Your task to perform on an android device: turn on bluetooth scan Image 0: 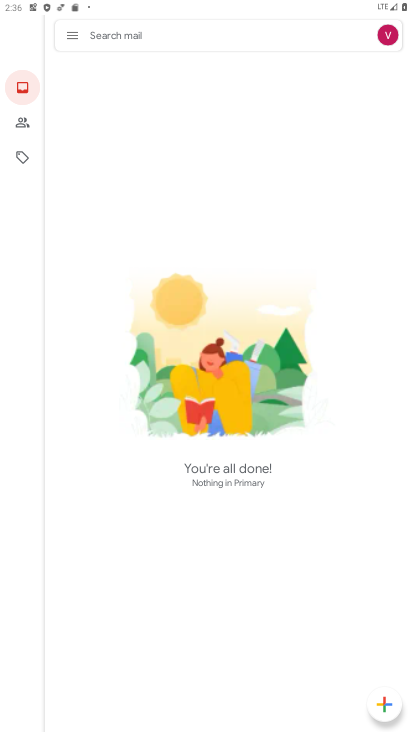
Step 0: press home button
Your task to perform on an android device: turn on bluetooth scan Image 1: 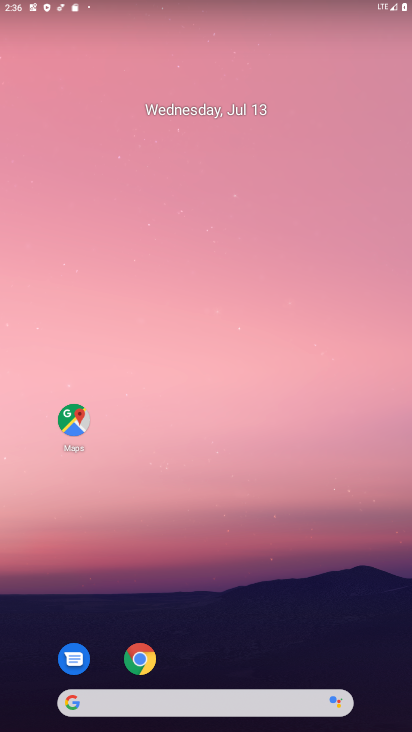
Step 1: drag from (371, 655) to (340, 47)
Your task to perform on an android device: turn on bluetooth scan Image 2: 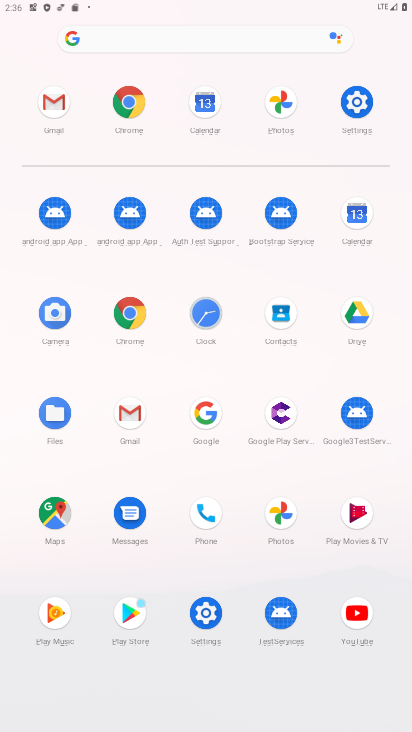
Step 2: click (205, 616)
Your task to perform on an android device: turn on bluetooth scan Image 3: 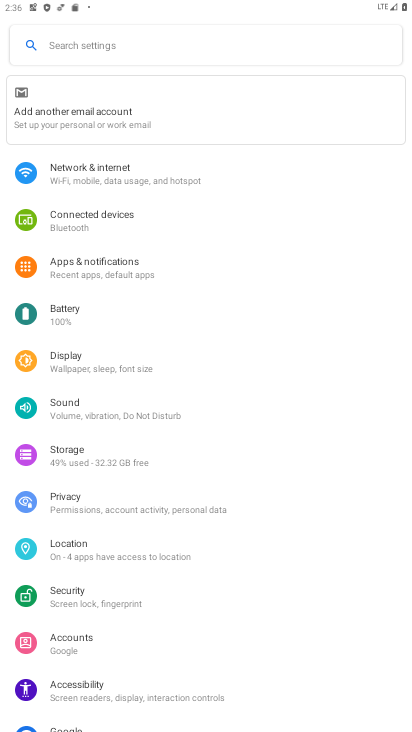
Step 3: click (78, 541)
Your task to perform on an android device: turn on bluetooth scan Image 4: 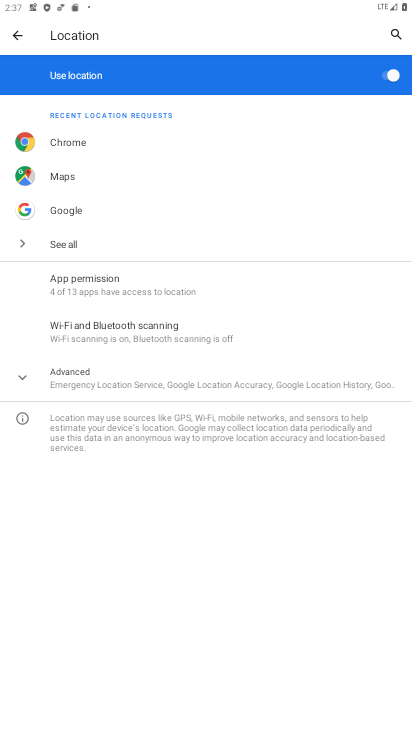
Step 4: click (93, 323)
Your task to perform on an android device: turn on bluetooth scan Image 5: 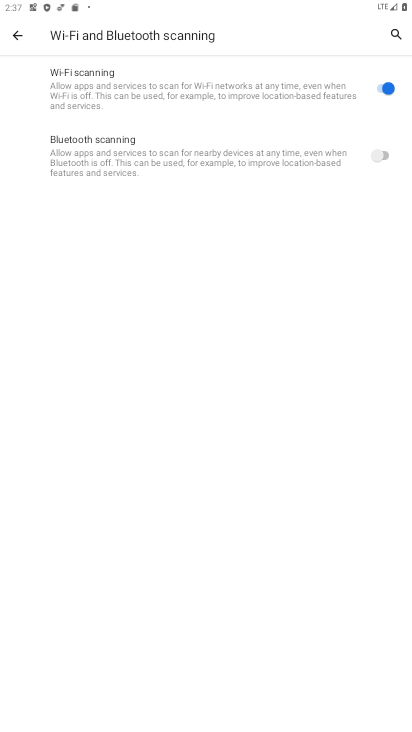
Step 5: click (382, 154)
Your task to perform on an android device: turn on bluetooth scan Image 6: 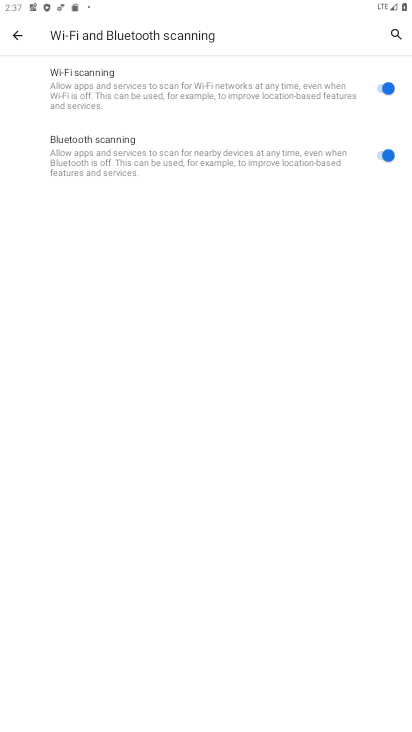
Step 6: task complete